Your task to perform on an android device: set an alarm Image 0: 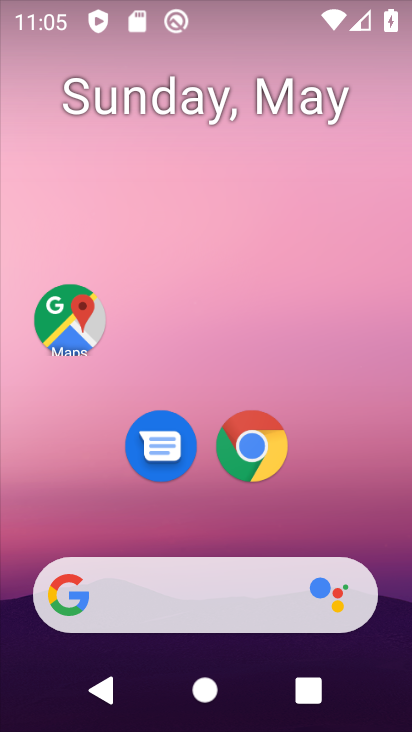
Step 0: drag from (321, 462) to (29, 13)
Your task to perform on an android device: set an alarm Image 1: 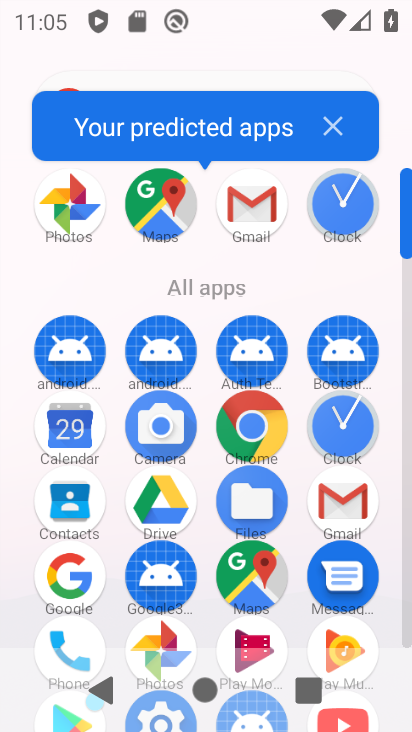
Step 1: drag from (10, 477) to (10, 223)
Your task to perform on an android device: set an alarm Image 2: 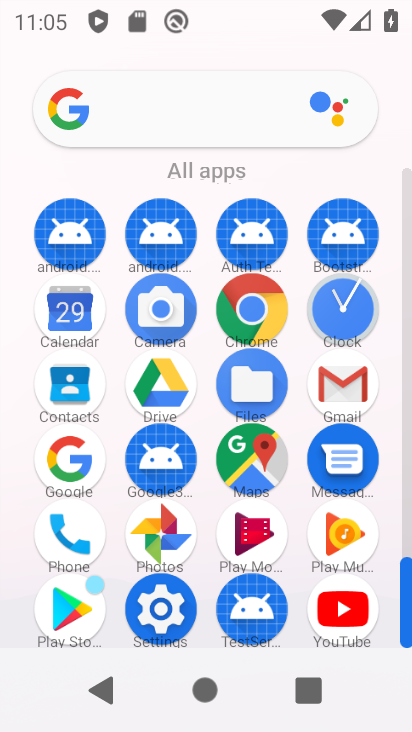
Step 2: click (342, 300)
Your task to perform on an android device: set an alarm Image 3: 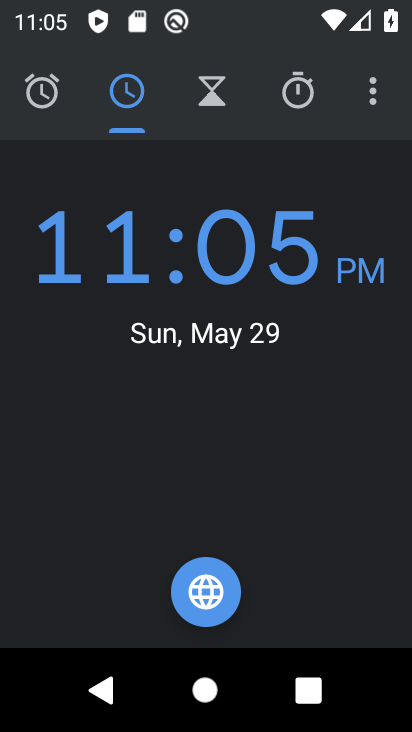
Step 3: drag from (374, 95) to (205, 150)
Your task to perform on an android device: set an alarm Image 4: 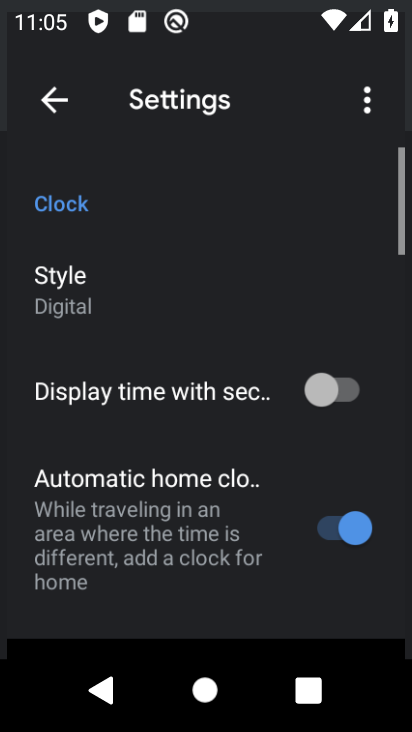
Step 4: click (181, 169)
Your task to perform on an android device: set an alarm Image 5: 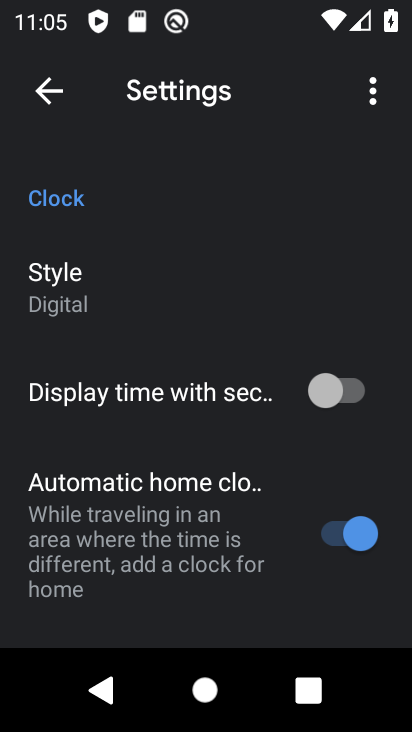
Step 5: drag from (213, 486) to (202, 168)
Your task to perform on an android device: set an alarm Image 6: 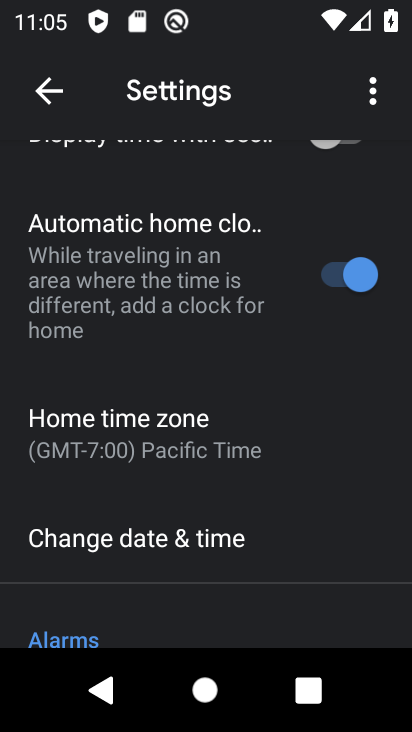
Step 6: drag from (190, 518) to (198, 217)
Your task to perform on an android device: set an alarm Image 7: 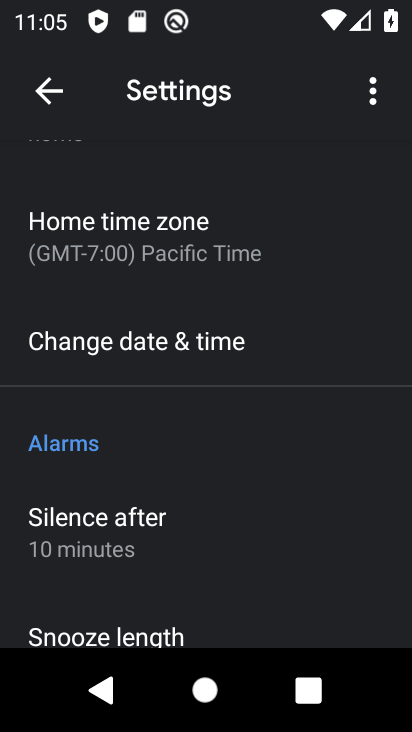
Step 7: click (176, 341)
Your task to perform on an android device: set an alarm Image 8: 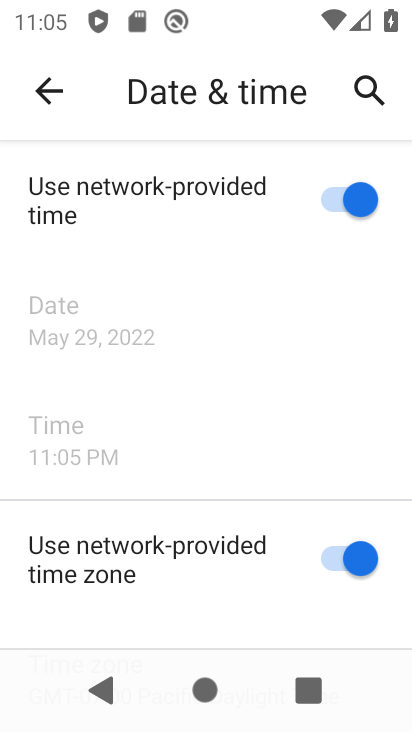
Step 8: drag from (189, 568) to (243, 161)
Your task to perform on an android device: set an alarm Image 9: 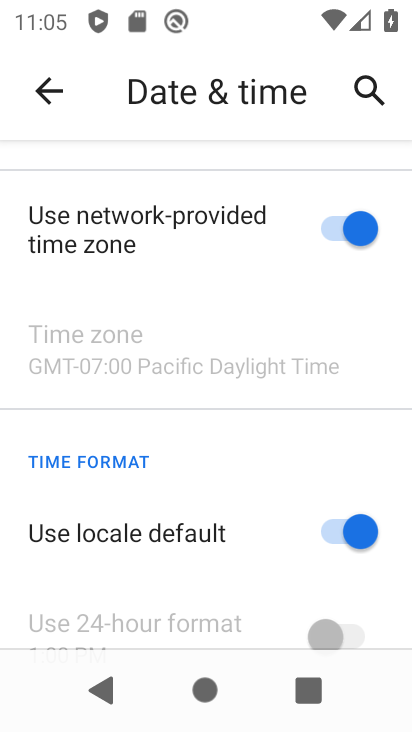
Step 9: drag from (190, 579) to (196, 171)
Your task to perform on an android device: set an alarm Image 10: 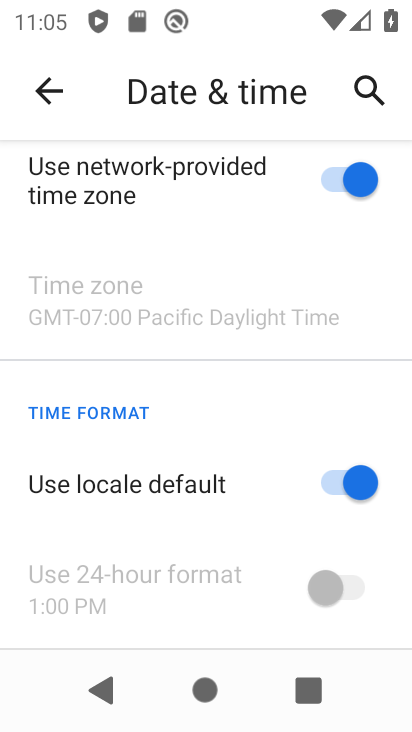
Step 10: drag from (201, 494) to (233, 230)
Your task to perform on an android device: set an alarm Image 11: 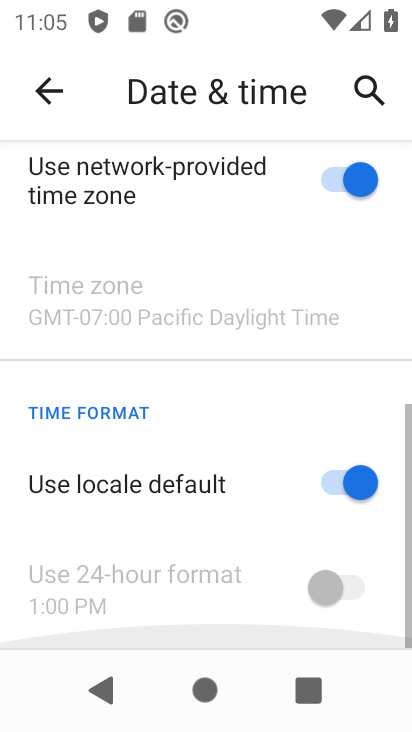
Step 11: drag from (253, 180) to (238, 275)
Your task to perform on an android device: set an alarm Image 12: 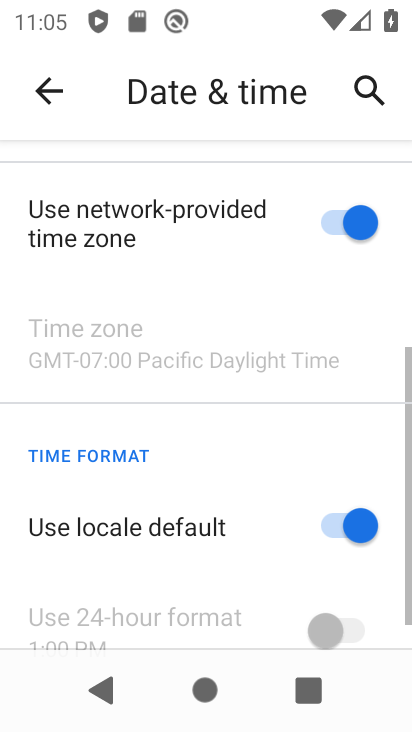
Step 12: click (205, 602)
Your task to perform on an android device: set an alarm Image 13: 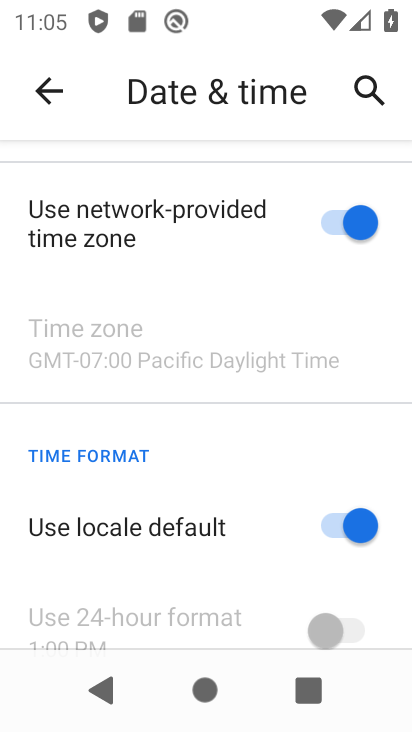
Step 13: drag from (217, 271) to (203, 608)
Your task to perform on an android device: set an alarm Image 14: 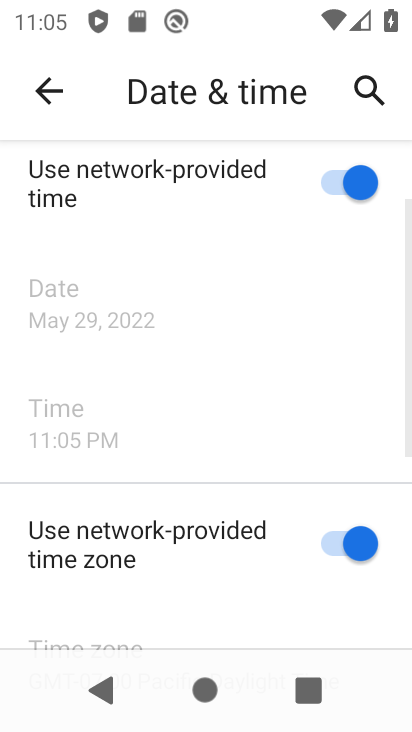
Step 14: drag from (214, 202) to (205, 550)
Your task to perform on an android device: set an alarm Image 15: 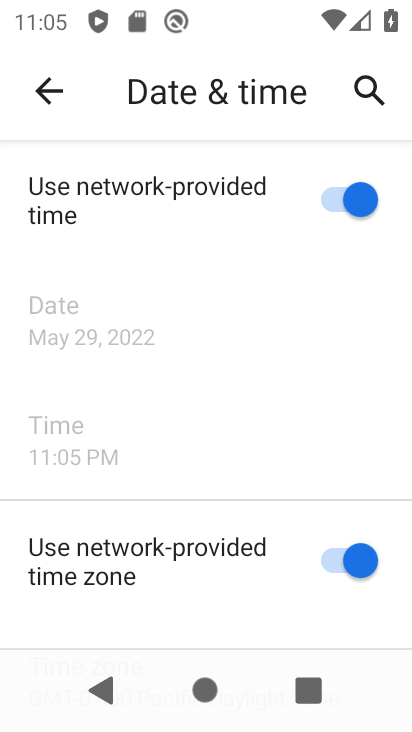
Step 15: click (49, 83)
Your task to perform on an android device: set an alarm Image 16: 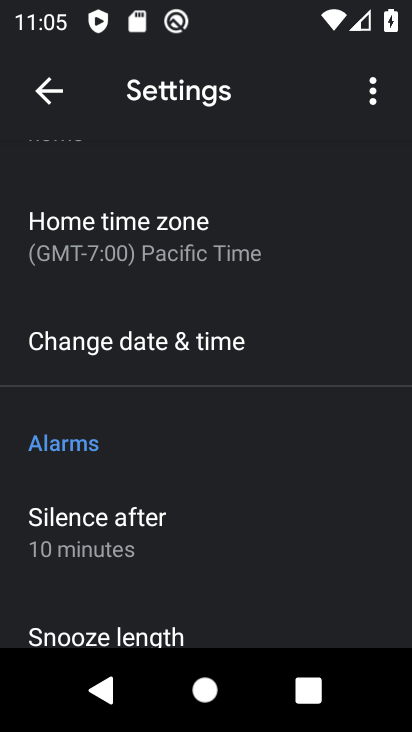
Step 16: click (53, 92)
Your task to perform on an android device: set an alarm Image 17: 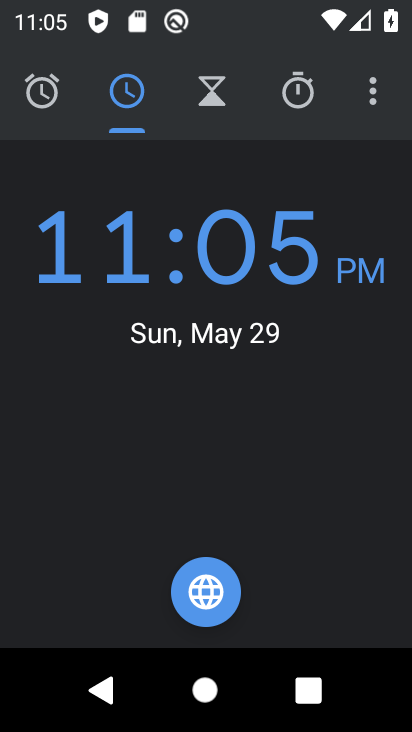
Step 17: click (50, 99)
Your task to perform on an android device: set an alarm Image 18: 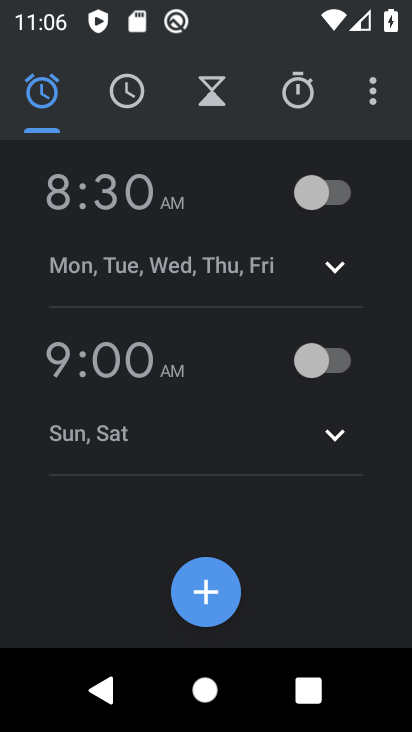
Step 18: click (211, 588)
Your task to perform on an android device: set an alarm Image 19: 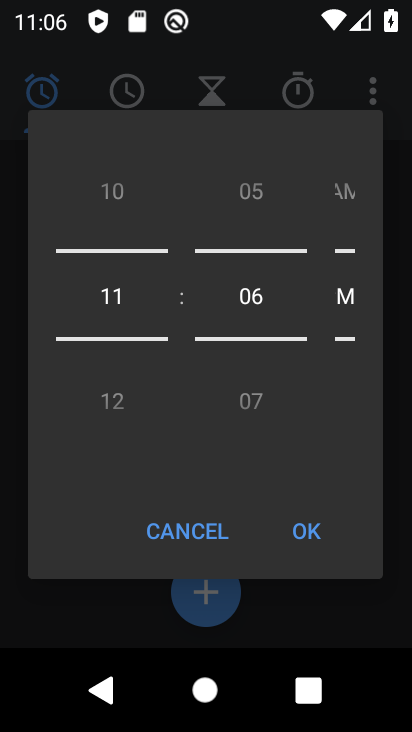
Step 19: drag from (124, 352) to (115, 159)
Your task to perform on an android device: set an alarm Image 20: 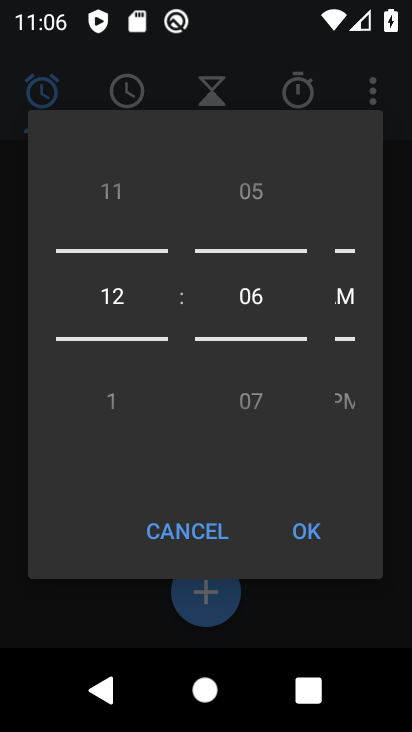
Step 20: click (312, 540)
Your task to perform on an android device: set an alarm Image 21: 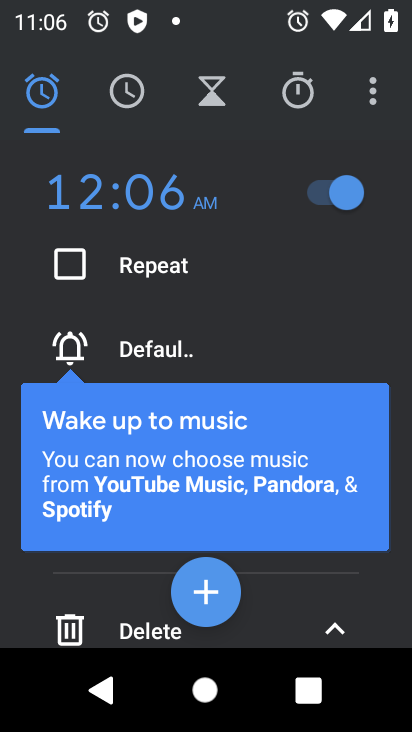
Step 21: task complete